Your task to perform on an android device: Go to notification settings Image 0: 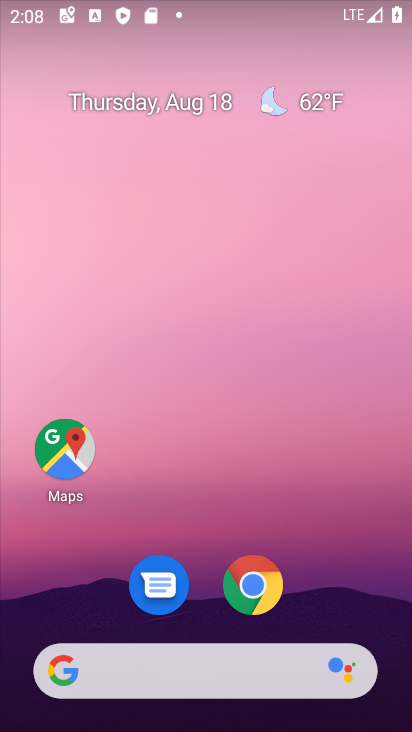
Step 0: drag from (349, 550) to (364, 22)
Your task to perform on an android device: Go to notification settings Image 1: 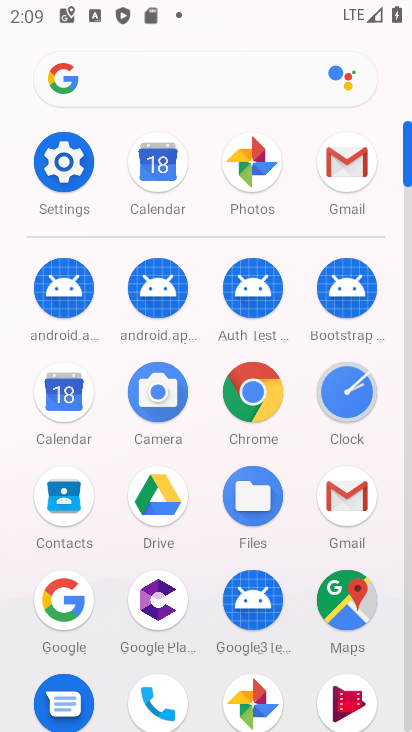
Step 1: click (63, 146)
Your task to perform on an android device: Go to notification settings Image 2: 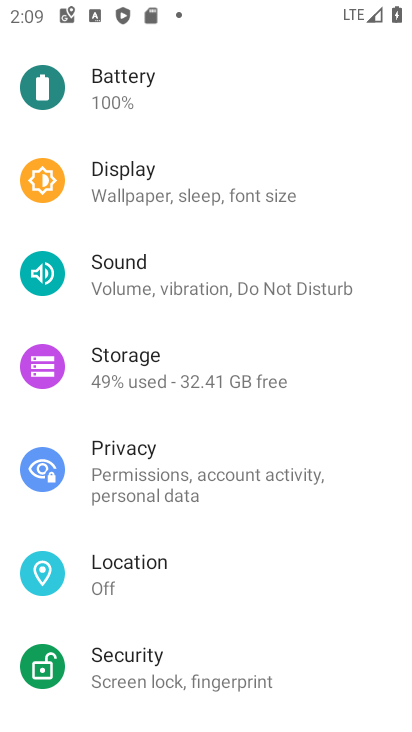
Step 2: drag from (234, 150) to (176, 623)
Your task to perform on an android device: Go to notification settings Image 3: 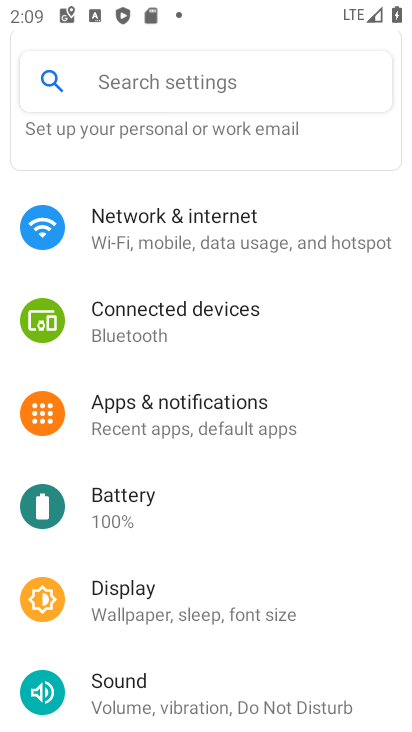
Step 3: click (242, 402)
Your task to perform on an android device: Go to notification settings Image 4: 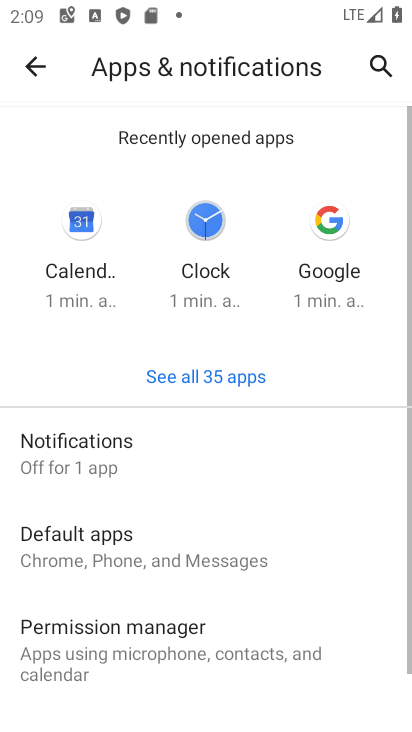
Step 4: click (103, 444)
Your task to perform on an android device: Go to notification settings Image 5: 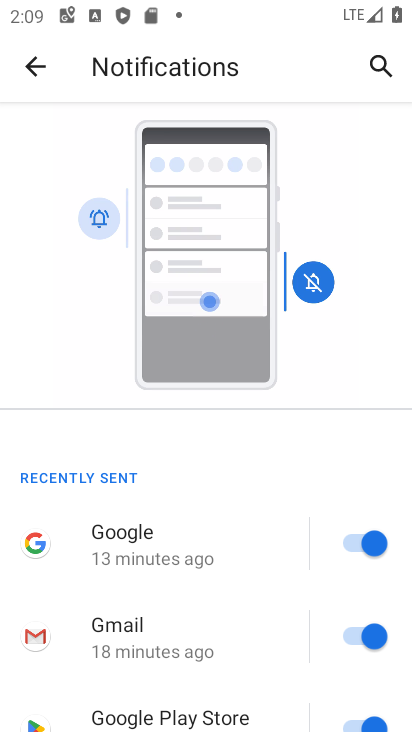
Step 5: task complete